Your task to perform on an android device: Open calendar and show me the second week of next month Image 0: 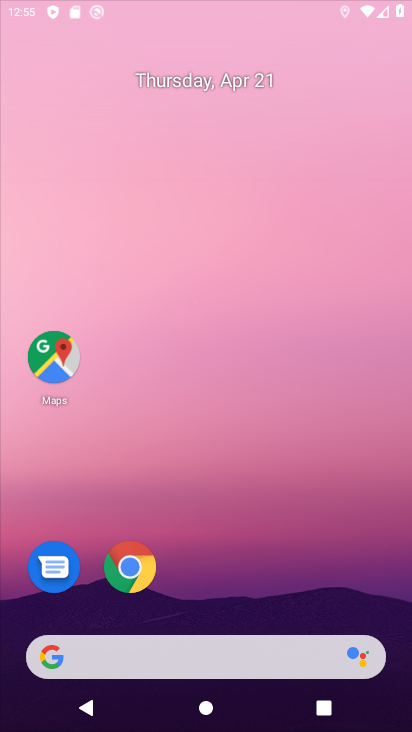
Step 0: click (134, 560)
Your task to perform on an android device: Open calendar and show me the second week of next month Image 1: 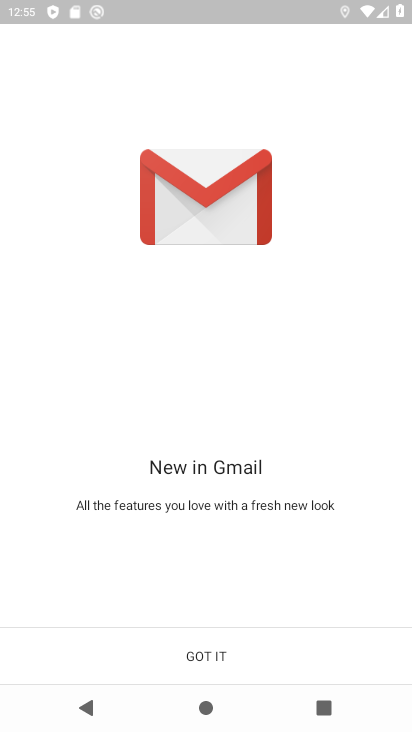
Step 1: press back button
Your task to perform on an android device: Open calendar and show me the second week of next month Image 2: 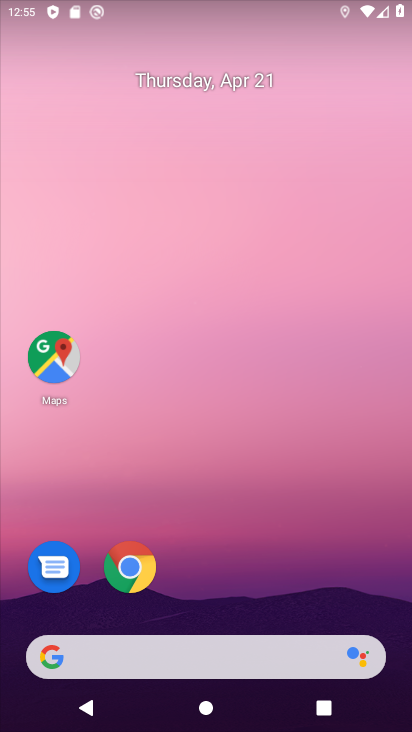
Step 2: drag from (203, 546) to (227, 41)
Your task to perform on an android device: Open calendar and show me the second week of next month Image 3: 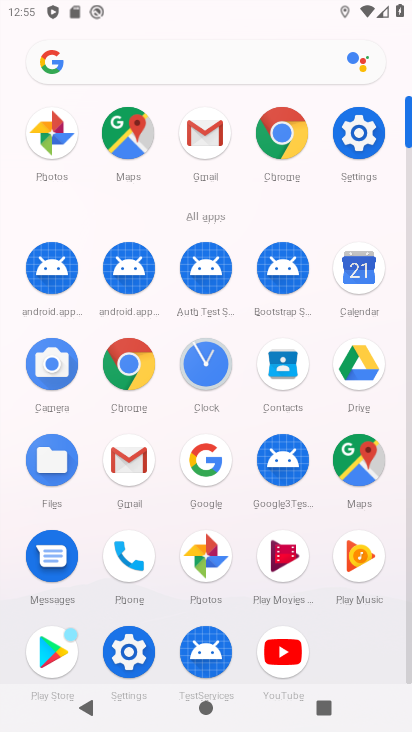
Step 3: click (359, 272)
Your task to perform on an android device: Open calendar and show me the second week of next month Image 4: 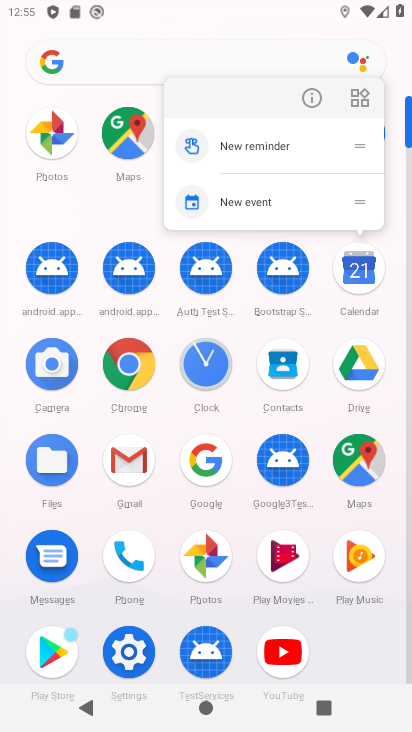
Step 4: click (359, 272)
Your task to perform on an android device: Open calendar and show me the second week of next month Image 5: 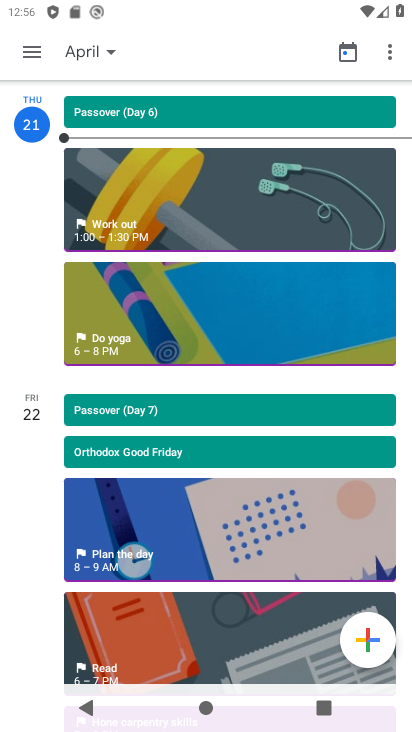
Step 5: click (84, 43)
Your task to perform on an android device: Open calendar and show me the second week of next month Image 6: 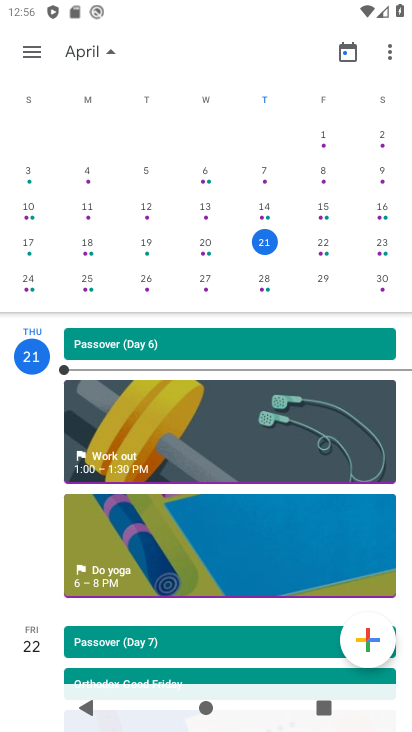
Step 6: drag from (289, 204) to (32, 173)
Your task to perform on an android device: Open calendar and show me the second week of next month Image 7: 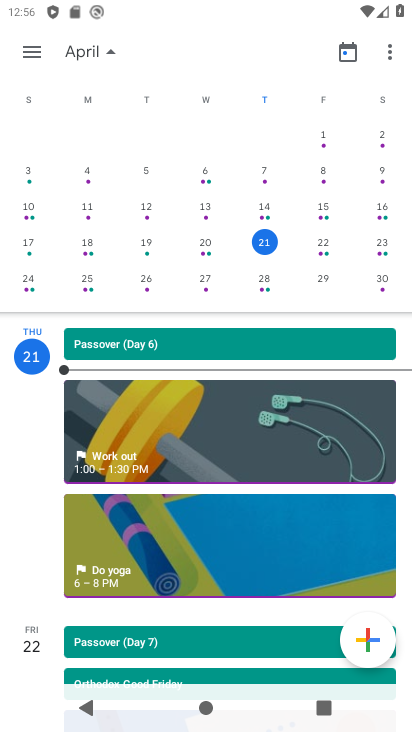
Step 7: drag from (309, 214) to (57, 195)
Your task to perform on an android device: Open calendar and show me the second week of next month Image 8: 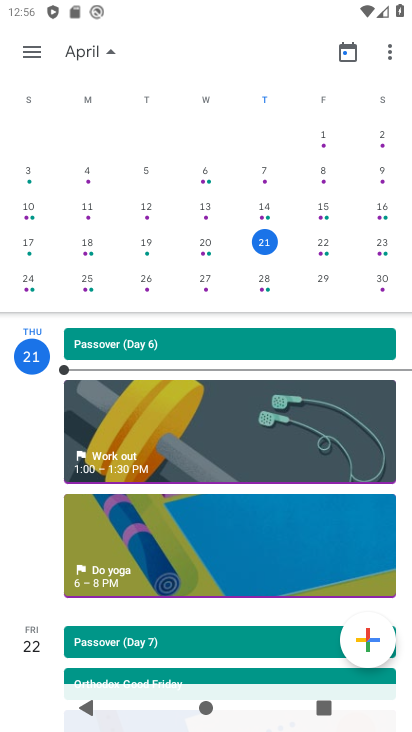
Step 8: drag from (351, 242) to (10, 213)
Your task to perform on an android device: Open calendar and show me the second week of next month Image 9: 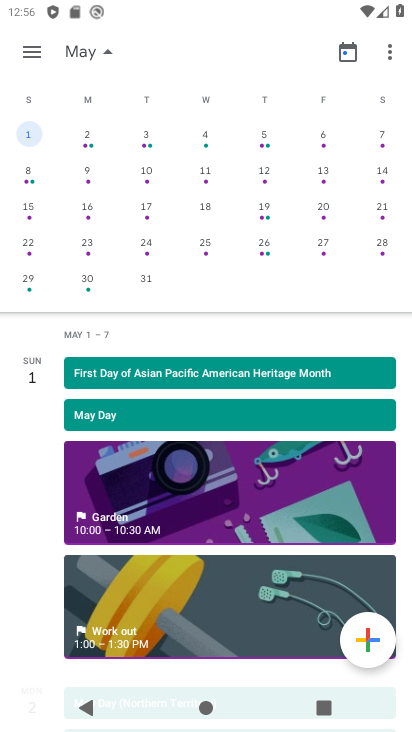
Step 9: click (90, 172)
Your task to perform on an android device: Open calendar and show me the second week of next month Image 10: 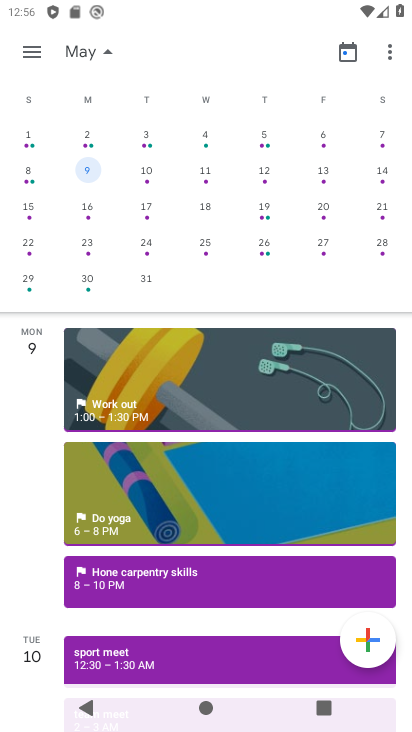
Step 10: task complete